Your task to perform on an android device: open chrome and create a bookmark for the current page Image 0: 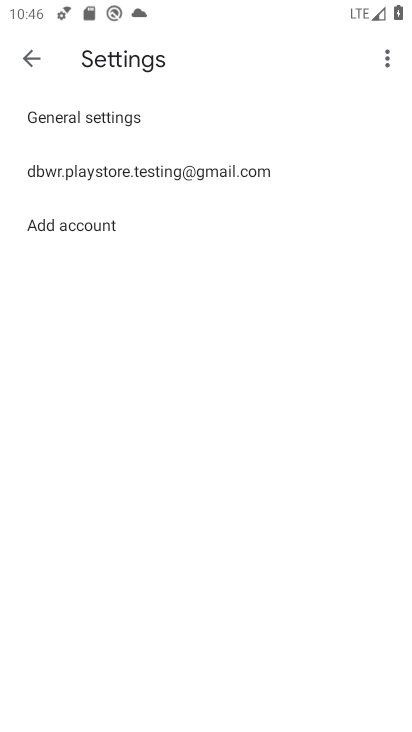
Step 0: press home button
Your task to perform on an android device: open chrome and create a bookmark for the current page Image 1: 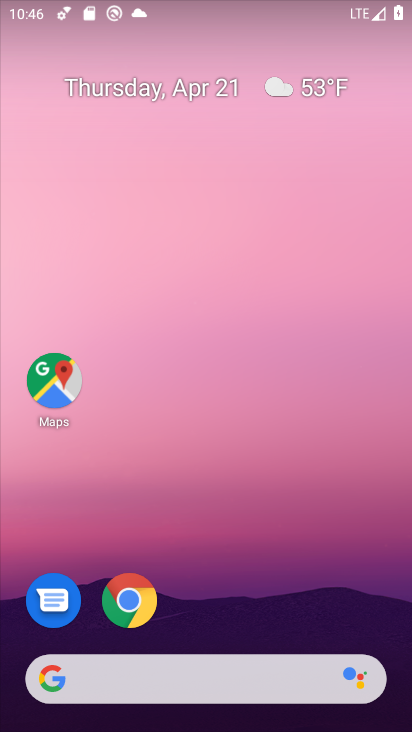
Step 1: click (136, 594)
Your task to perform on an android device: open chrome and create a bookmark for the current page Image 2: 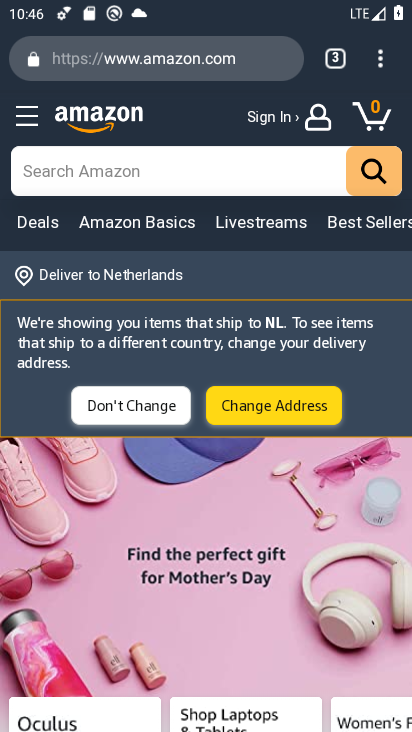
Step 2: click (378, 64)
Your task to perform on an android device: open chrome and create a bookmark for the current page Image 3: 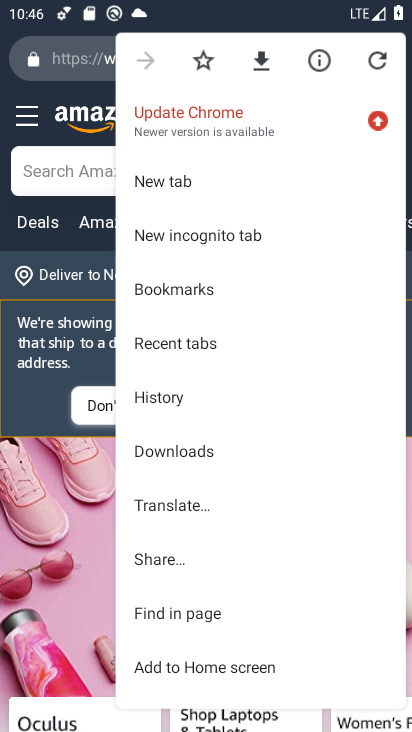
Step 3: click (205, 63)
Your task to perform on an android device: open chrome and create a bookmark for the current page Image 4: 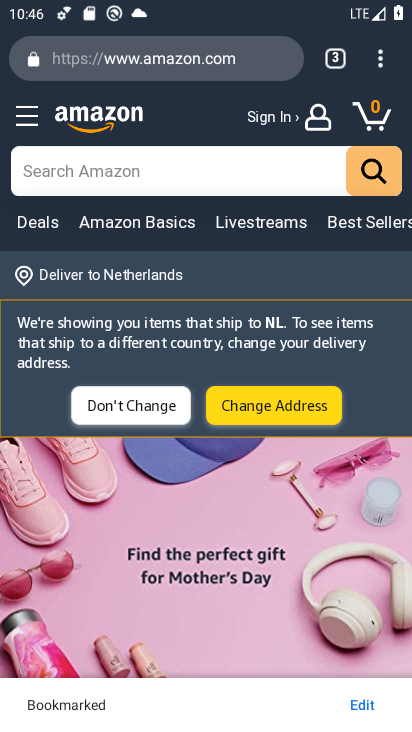
Step 4: task complete